Your task to perform on an android device: turn off data saver in the chrome app Image 0: 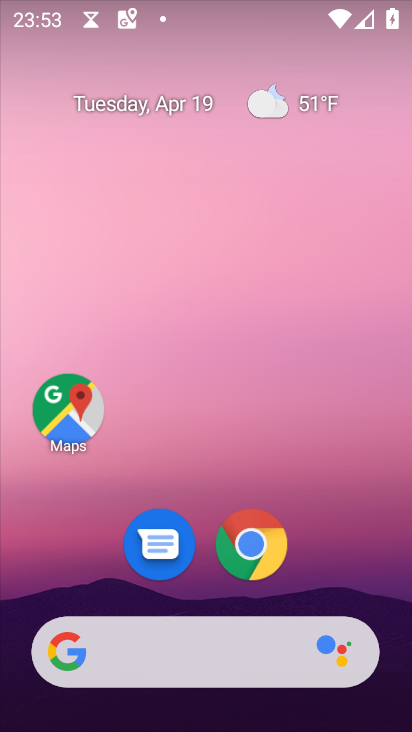
Step 0: click (264, 548)
Your task to perform on an android device: turn off data saver in the chrome app Image 1: 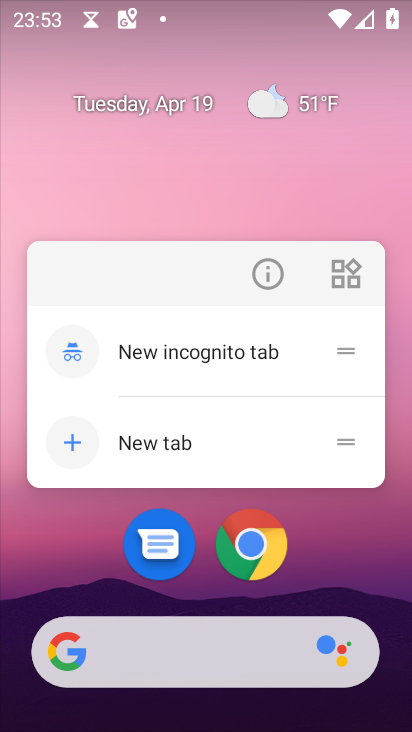
Step 1: click (261, 548)
Your task to perform on an android device: turn off data saver in the chrome app Image 2: 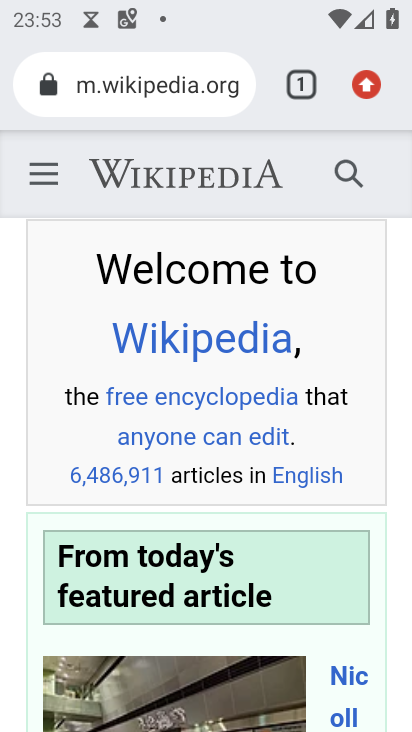
Step 2: click (364, 87)
Your task to perform on an android device: turn off data saver in the chrome app Image 3: 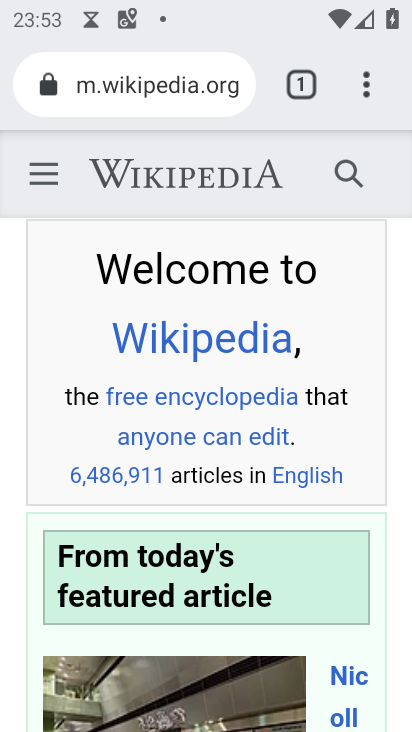
Step 3: click (364, 87)
Your task to perform on an android device: turn off data saver in the chrome app Image 4: 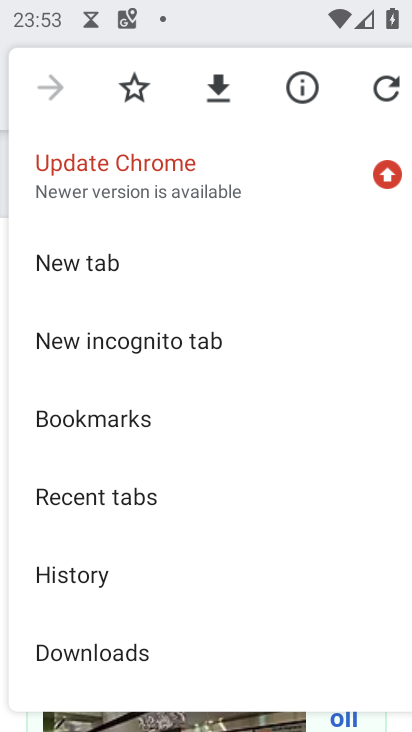
Step 4: drag from (205, 675) to (252, 460)
Your task to perform on an android device: turn off data saver in the chrome app Image 5: 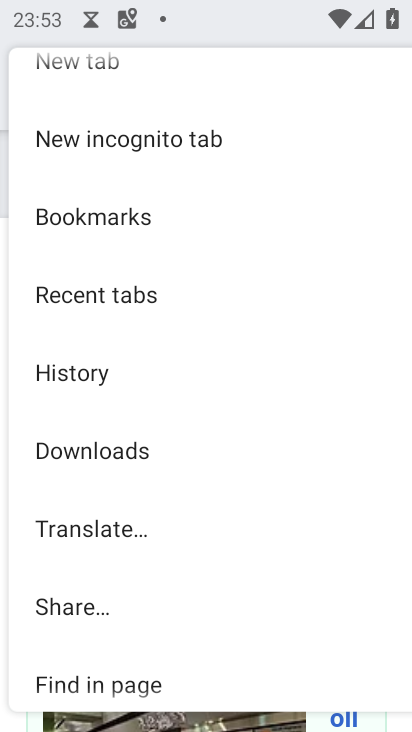
Step 5: drag from (198, 620) to (211, 420)
Your task to perform on an android device: turn off data saver in the chrome app Image 6: 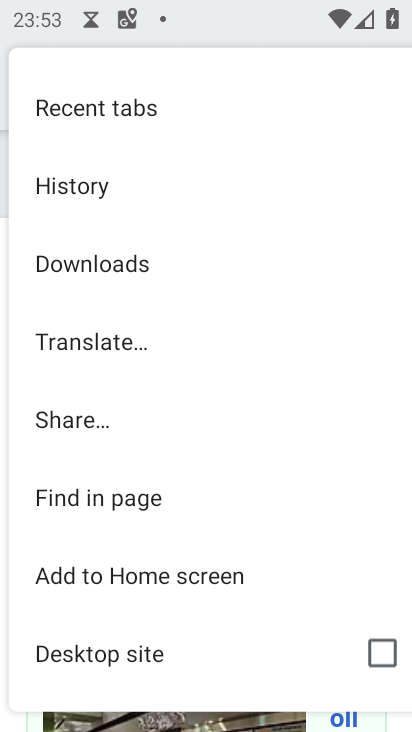
Step 6: drag from (202, 615) to (218, 469)
Your task to perform on an android device: turn off data saver in the chrome app Image 7: 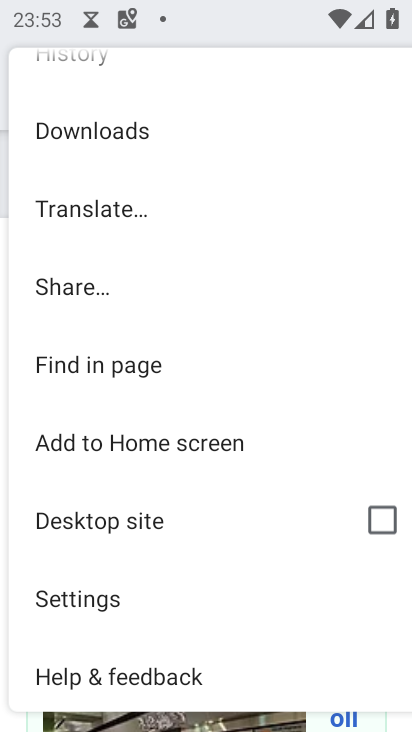
Step 7: click (153, 618)
Your task to perform on an android device: turn off data saver in the chrome app Image 8: 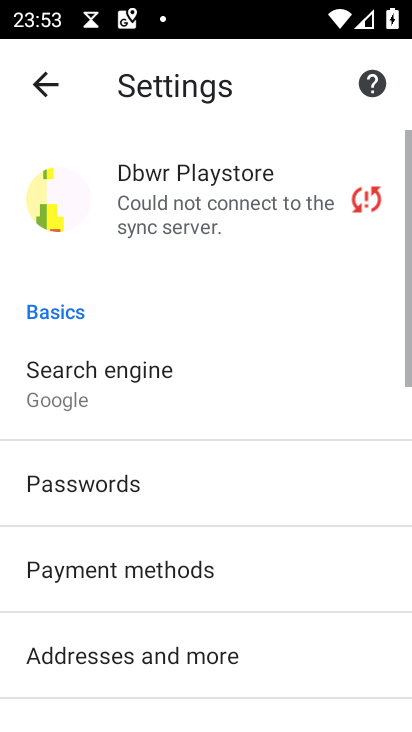
Step 8: drag from (158, 669) to (228, 496)
Your task to perform on an android device: turn off data saver in the chrome app Image 9: 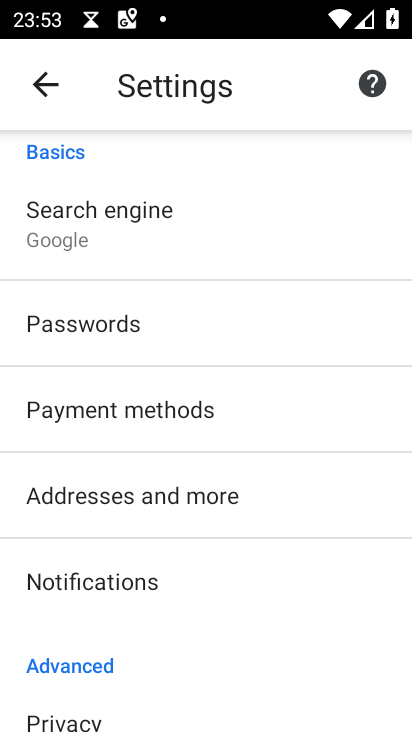
Step 9: drag from (189, 648) to (213, 524)
Your task to perform on an android device: turn off data saver in the chrome app Image 10: 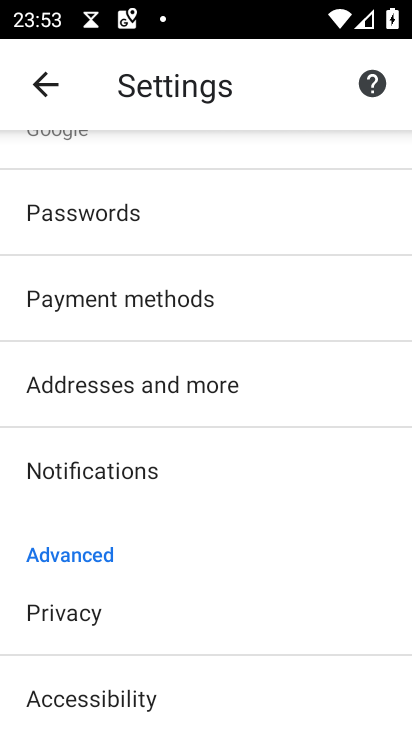
Step 10: drag from (190, 666) to (202, 544)
Your task to perform on an android device: turn off data saver in the chrome app Image 11: 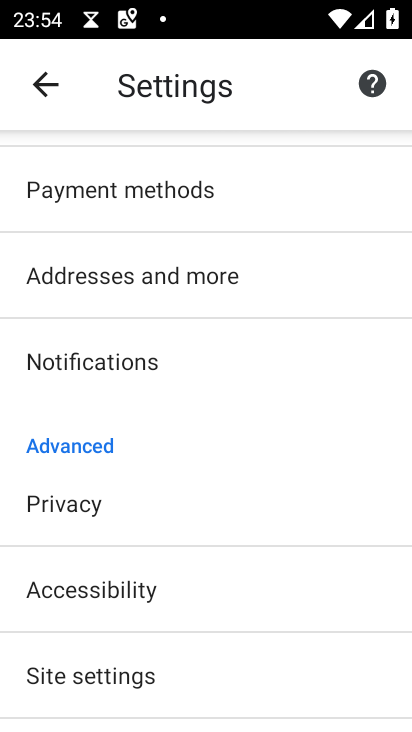
Step 11: drag from (158, 652) to (170, 549)
Your task to perform on an android device: turn off data saver in the chrome app Image 12: 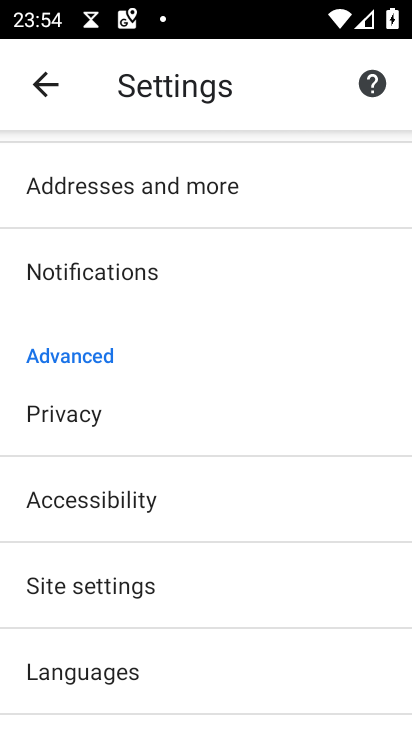
Step 12: drag from (135, 649) to (160, 532)
Your task to perform on an android device: turn off data saver in the chrome app Image 13: 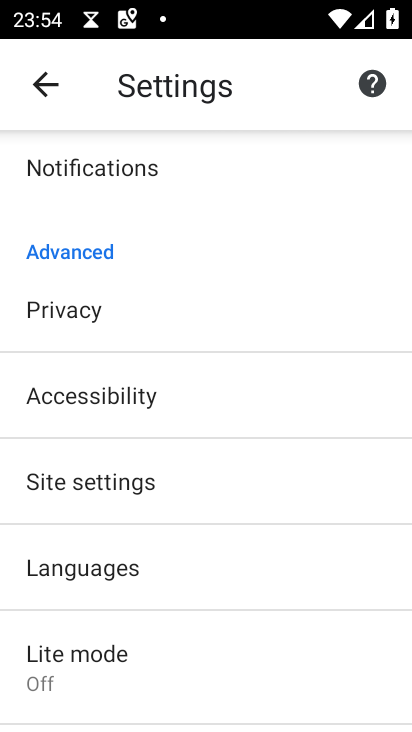
Step 13: click (105, 665)
Your task to perform on an android device: turn off data saver in the chrome app Image 14: 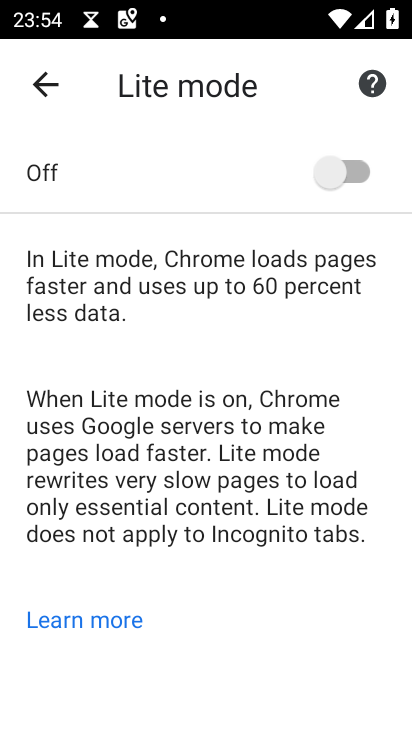
Step 14: task complete